Your task to perform on an android device: Open Google Chrome Image 0: 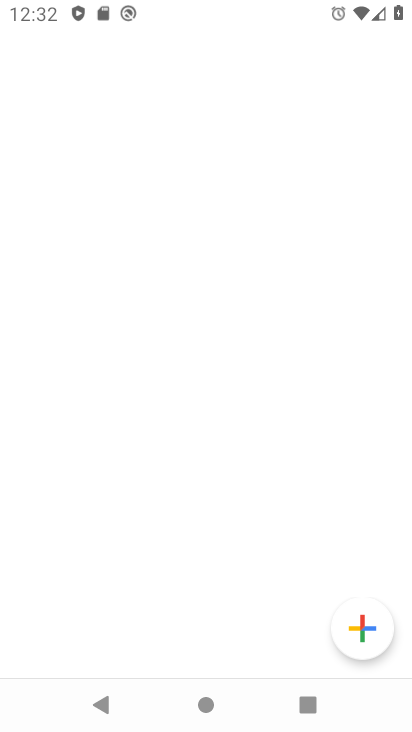
Step 0: click (133, 554)
Your task to perform on an android device: Open Google Chrome Image 1: 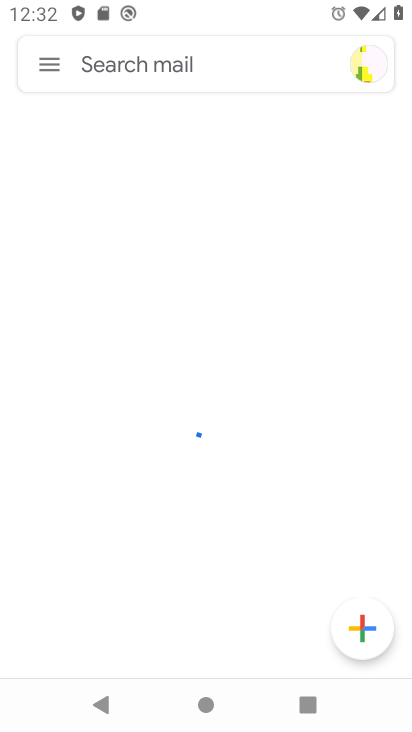
Step 1: press home button
Your task to perform on an android device: Open Google Chrome Image 2: 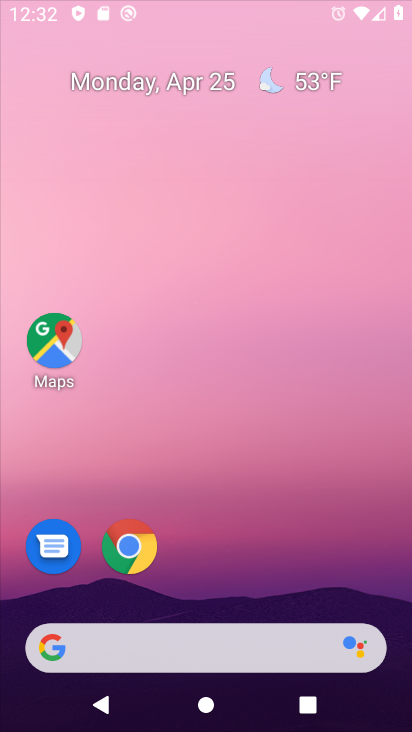
Step 2: press home button
Your task to perform on an android device: Open Google Chrome Image 3: 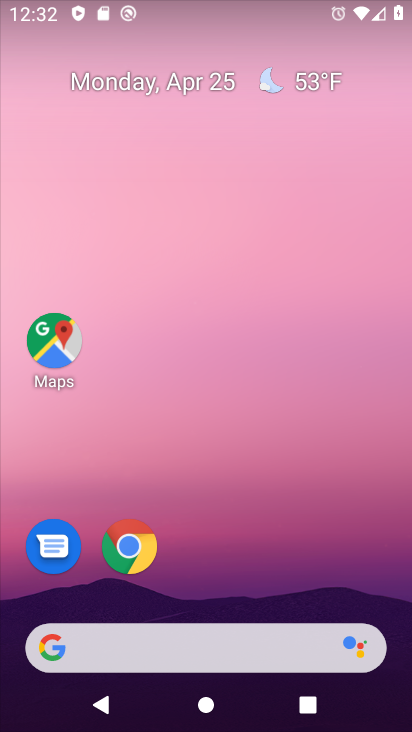
Step 3: press home button
Your task to perform on an android device: Open Google Chrome Image 4: 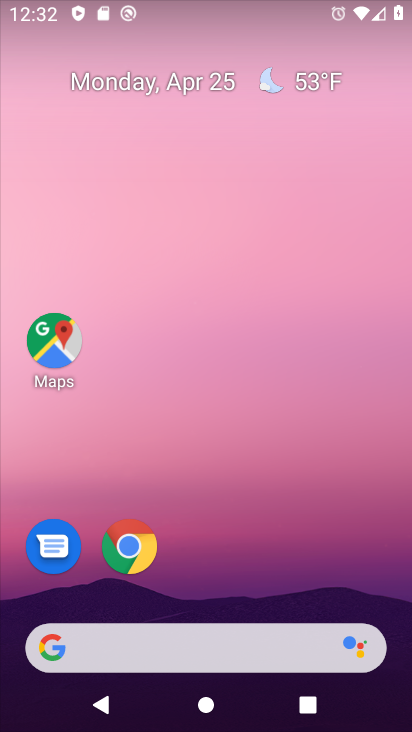
Step 4: press home button
Your task to perform on an android device: Open Google Chrome Image 5: 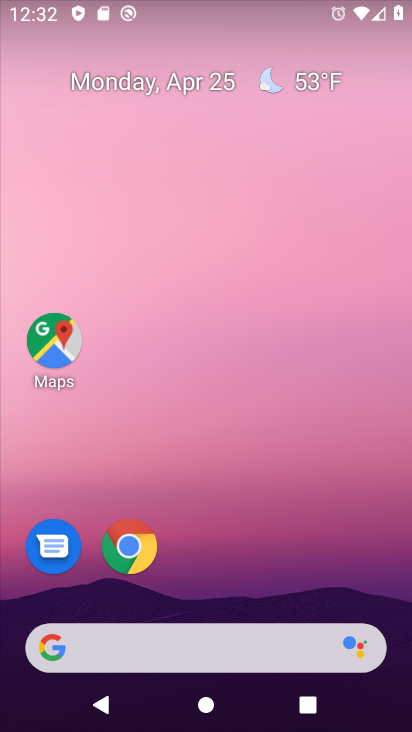
Step 5: click (122, 547)
Your task to perform on an android device: Open Google Chrome Image 6: 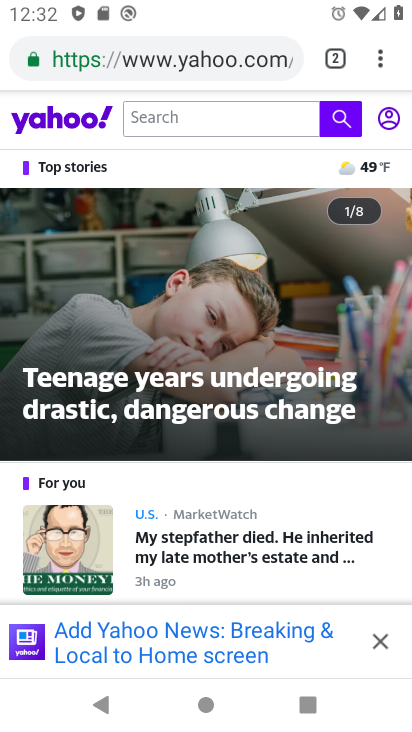
Step 6: task complete